Your task to perform on an android device: open sync settings in chrome Image 0: 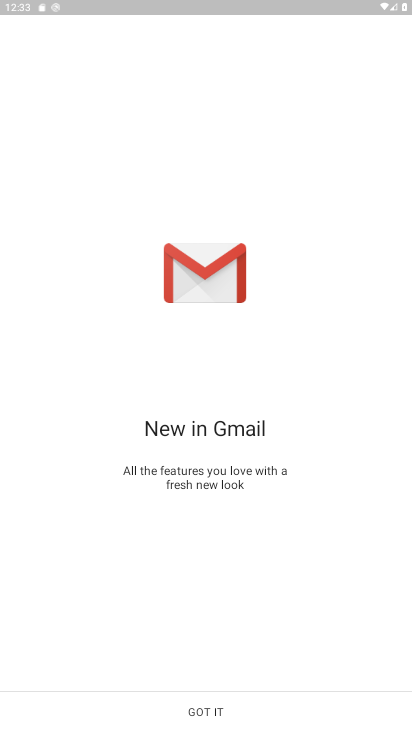
Step 0: press home button
Your task to perform on an android device: open sync settings in chrome Image 1: 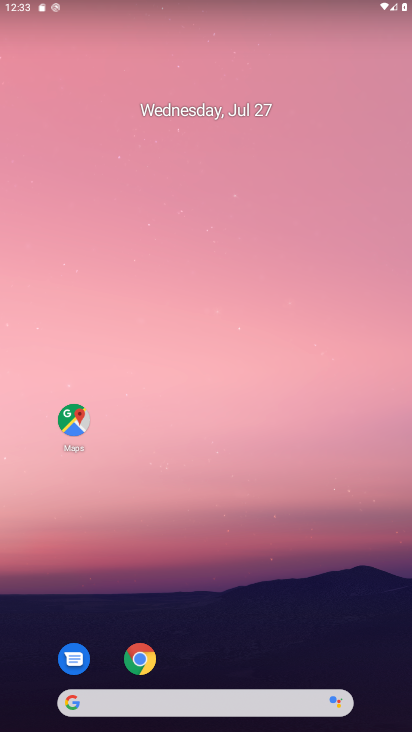
Step 1: click (146, 660)
Your task to perform on an android device: open sync settings in chrome Image 2: 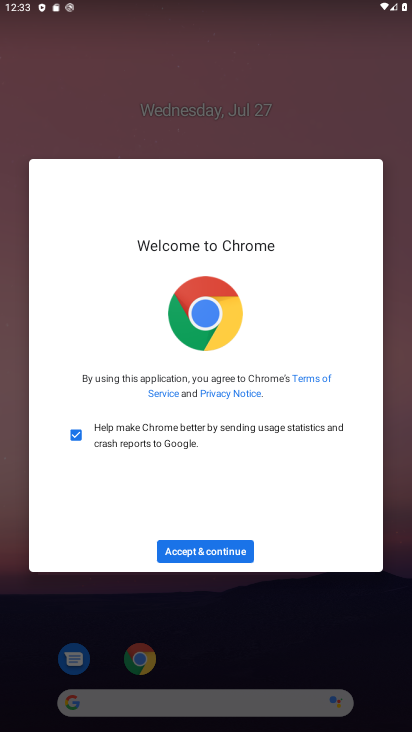
Step 2: click (187, 546)
Your task to perform on an android device: open sync settings in chrome Image 3: 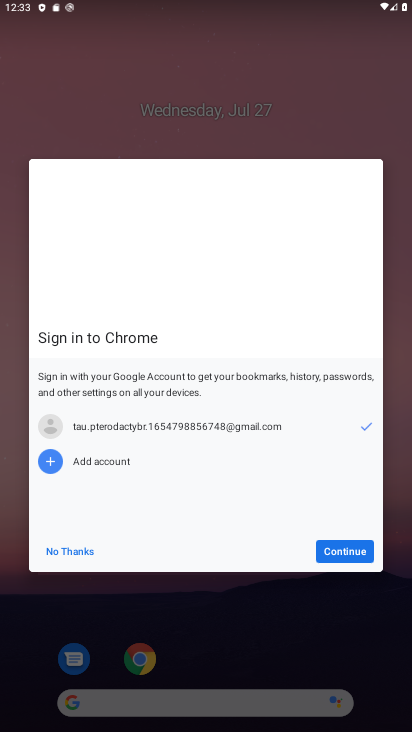
Step 3: click (350, 556)
Your task to perform on an android device: open sync settings in chrome Image 4: 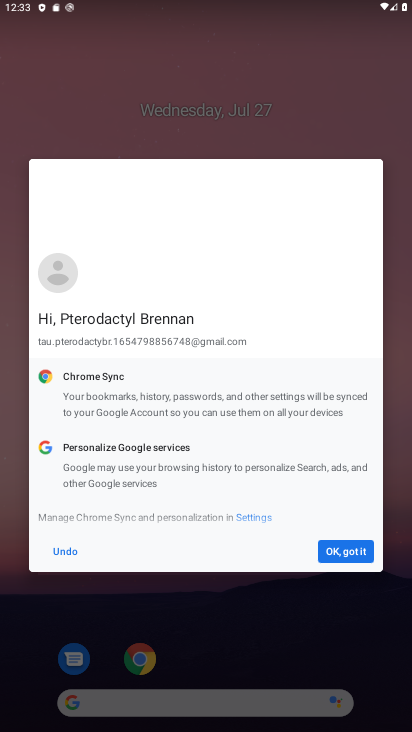
Step 4: click (350, 556)
Your task to perform on an android device: open sync settings in chrome Image 5: 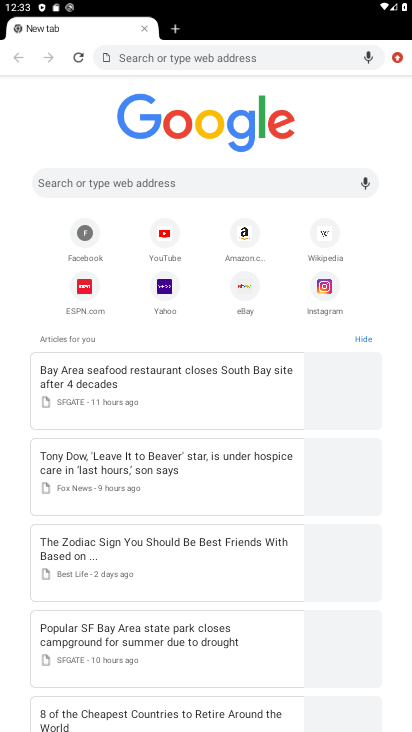
Step 5: click (397, 55)
Your task to perform on an android device: open sync settings in chrome Image 6: 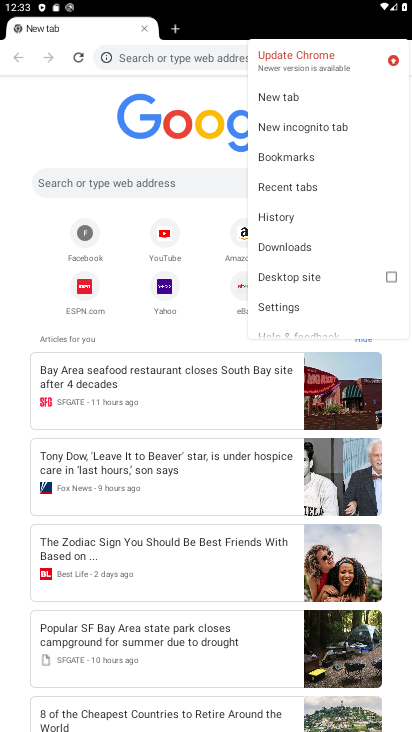
Step 6: click (303, 312)
Your task to perform on an android device: open sync settings in chrome Image 7: 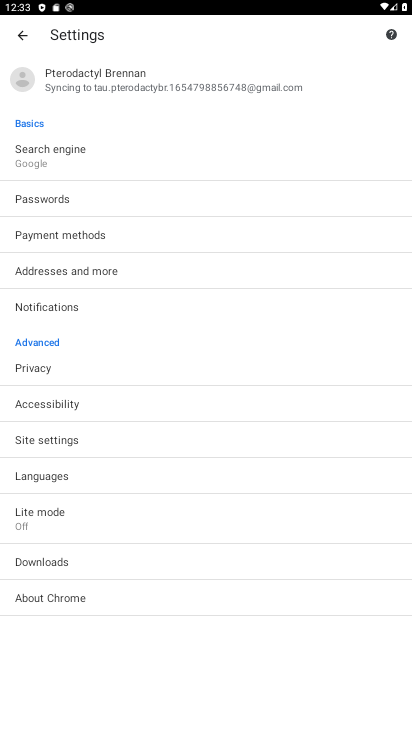
Step 7: click (111, 72)
Your task to perform on an android device: open sync settings in chrome Image 8: 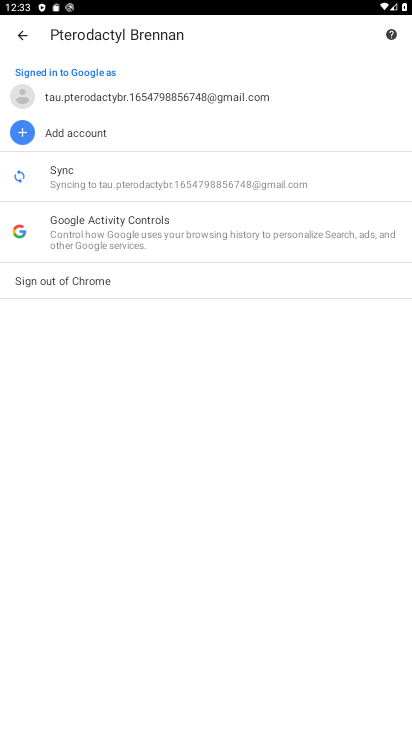
Step 8: click (105, 174)
Your task to perform on an android device: open sync settings in chrome Image 9: 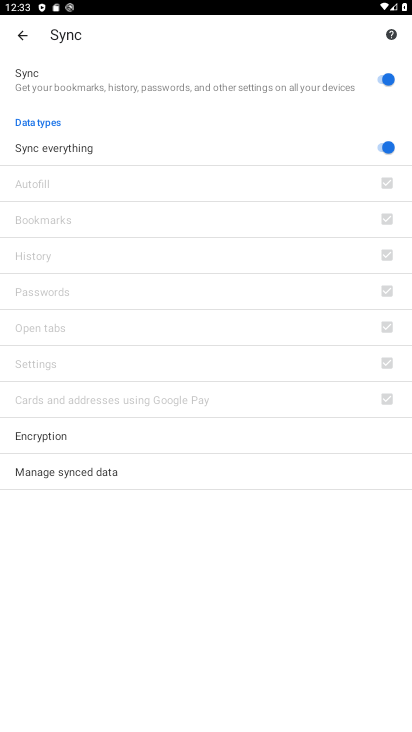
Step 9: task complete